Your task to perform on an android device: Open the stopwatch Image 0: 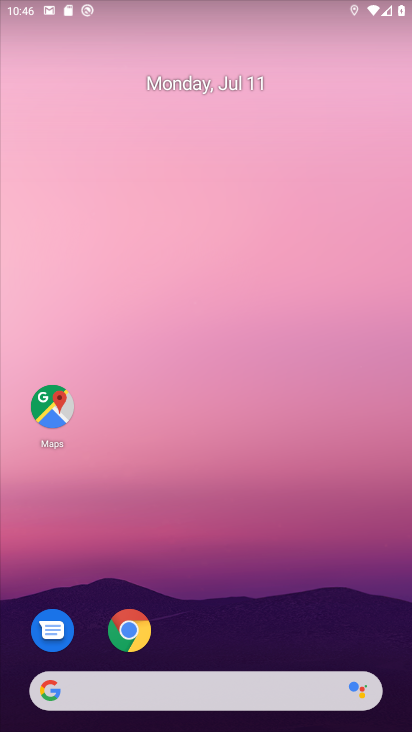
Step 0: drag from (249, 643) to (227, 238)
Your task to perform on an android device: Open the stopwatch Image 1: 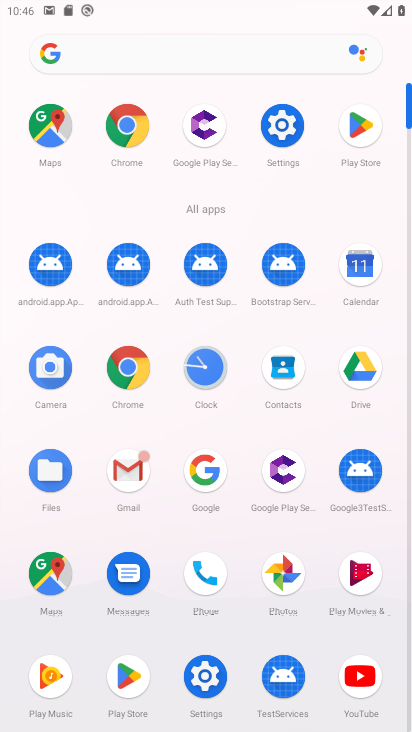
Step 1: click (198, 370)
Your task to perform on an android device: Open the stopwatch Image 2: 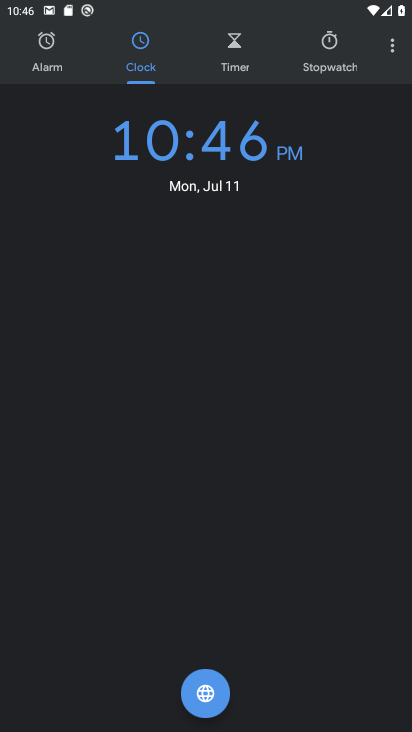
Step 2: click (332, 36)
Your task to perform on an android device: Open the stopwatch Image 3: 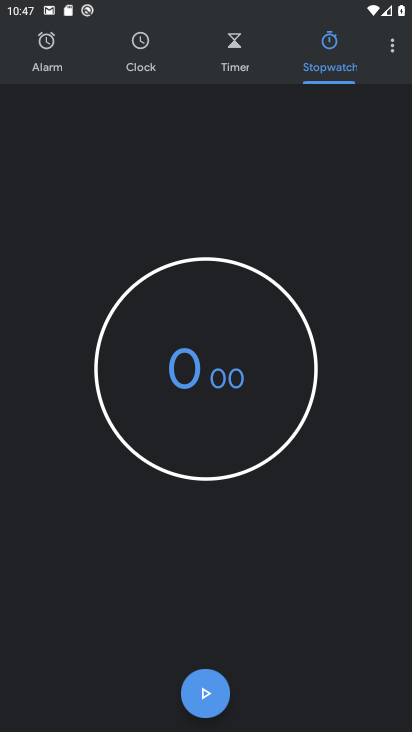
Step 3: task complete